Your task to perform on an android device: change your default location settings in chrome Image 0: 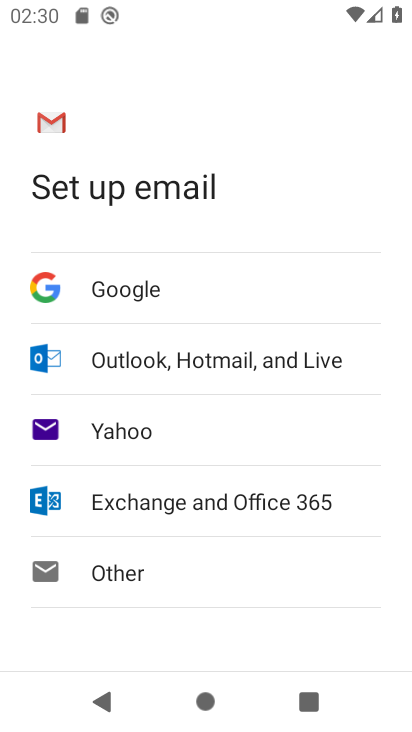
Step 0: press home button
Your task to perform on an android device: change your default location settings in chrome Image 1: 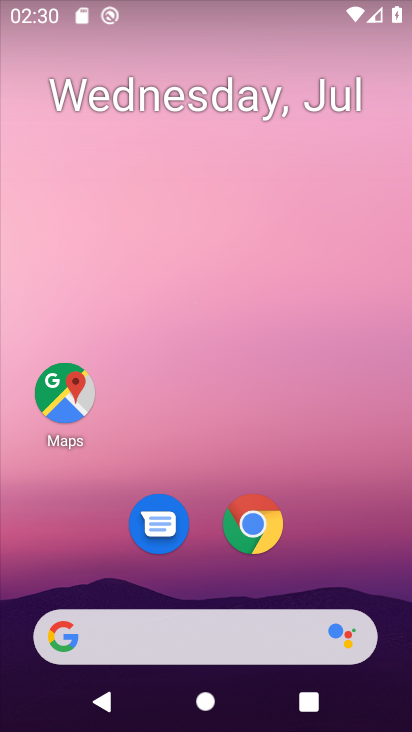
Step 1: click (258, 530)
Your task to perform on an android device: change your default location settings in chrome Image 2: 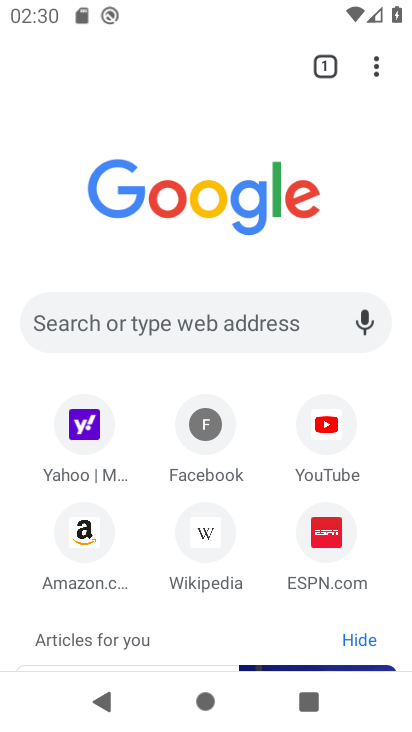
Step 2: click (376, 65)
Your task to perform on an android device: change your default location settings in chrome Image 3: 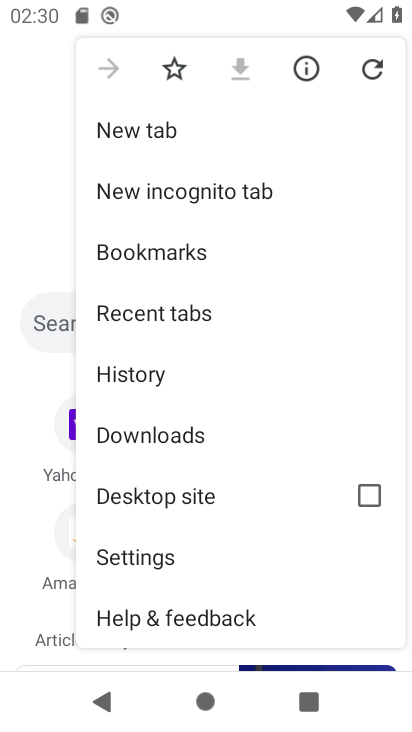
Step 3: click (159, 553)
Your task to perform on an android device: change your default location settings in chrome Image 4: 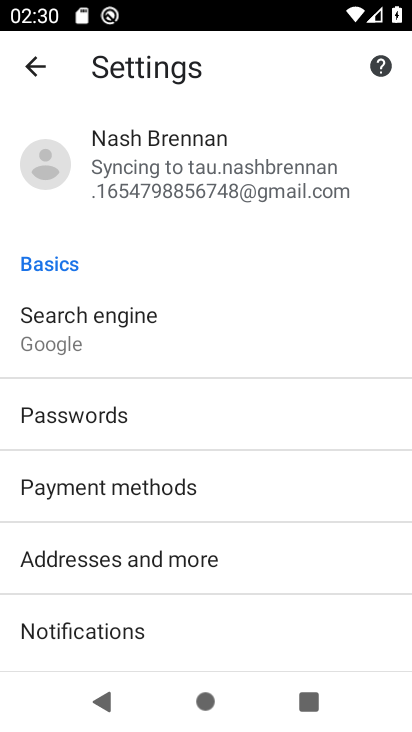
Step 4: drag from (280, 585) to (327, 280)
Your task to perform on an android device: change your default location settings in chrome Image 5: 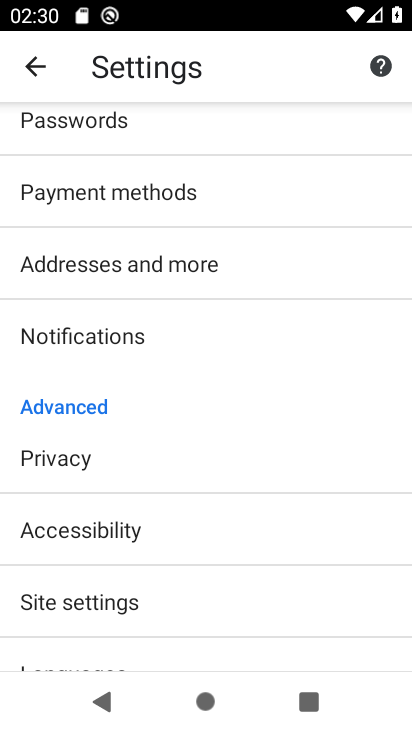
Step 5: click (122, 593)
Your task to perform on an android device: change your default location settings in chrome Image 6: 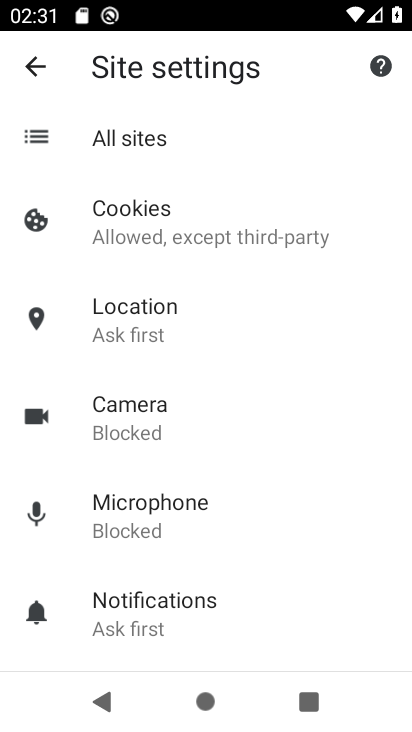
Step 6: click (150, 313)
Your task to perform on an android device: change your default location settings in chrome Image 7: 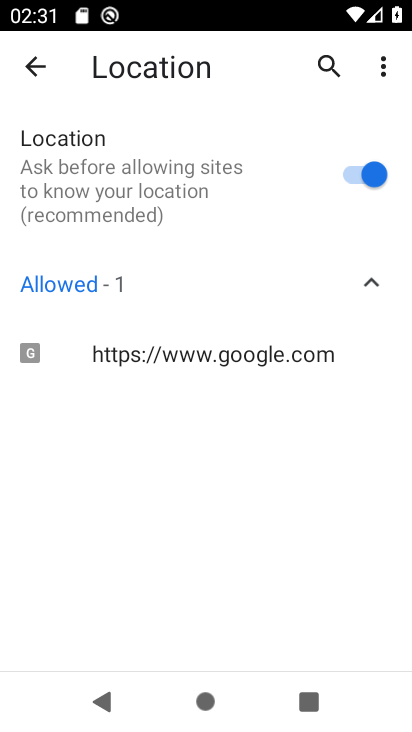
Step 7: click (353, 163)
Your task to perform on an android device: change your default location settings in chrome Image 8: 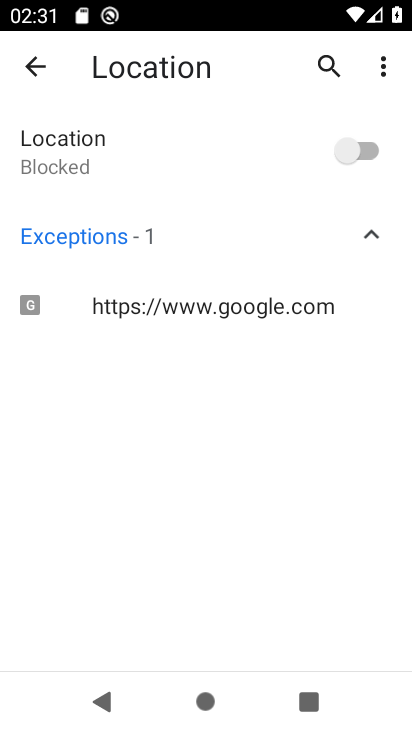
Step 8: task complete